Your task to perform on an android device: open app "Google Chat" (install if not already installed) Image 0: 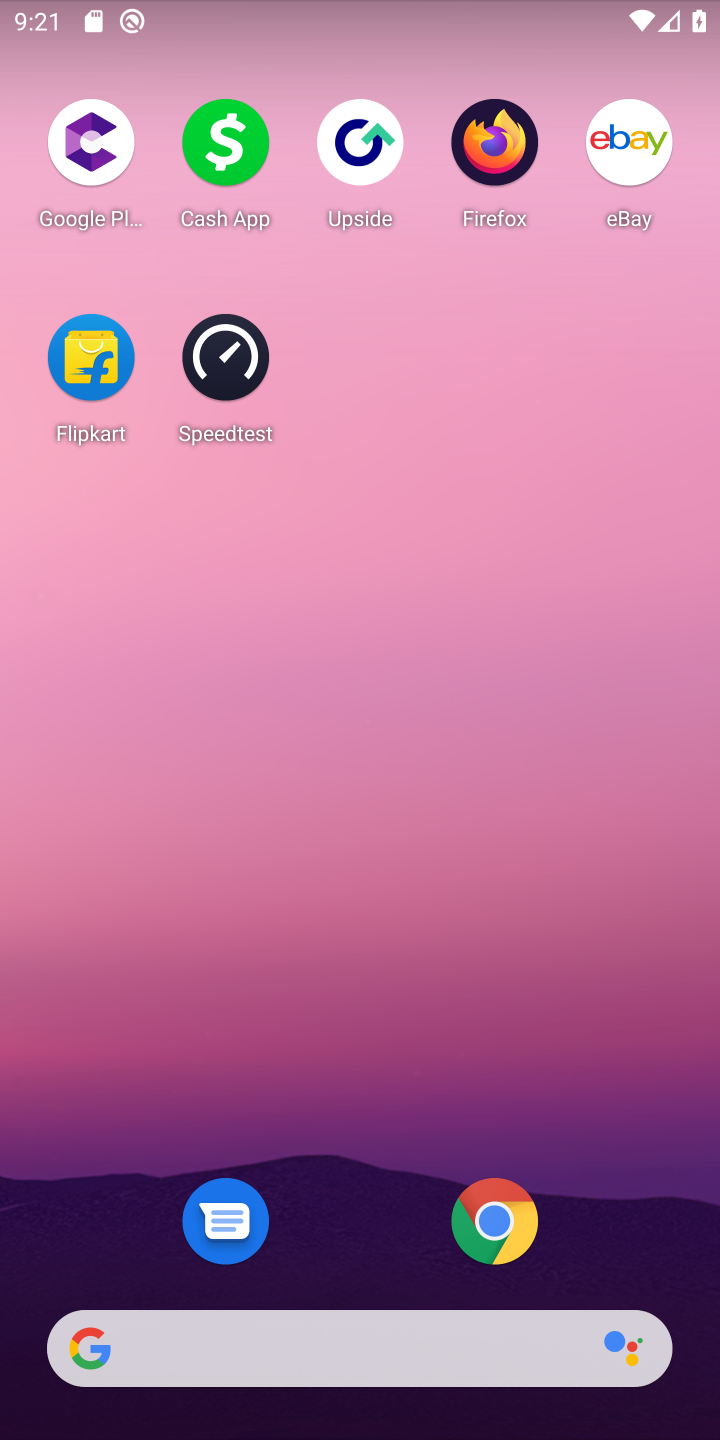
Step 0: drag from (328, 1090) to (318, 219)
Your task to perform on an android device: open app "Google Chat" (install if not already installed) Image 1: 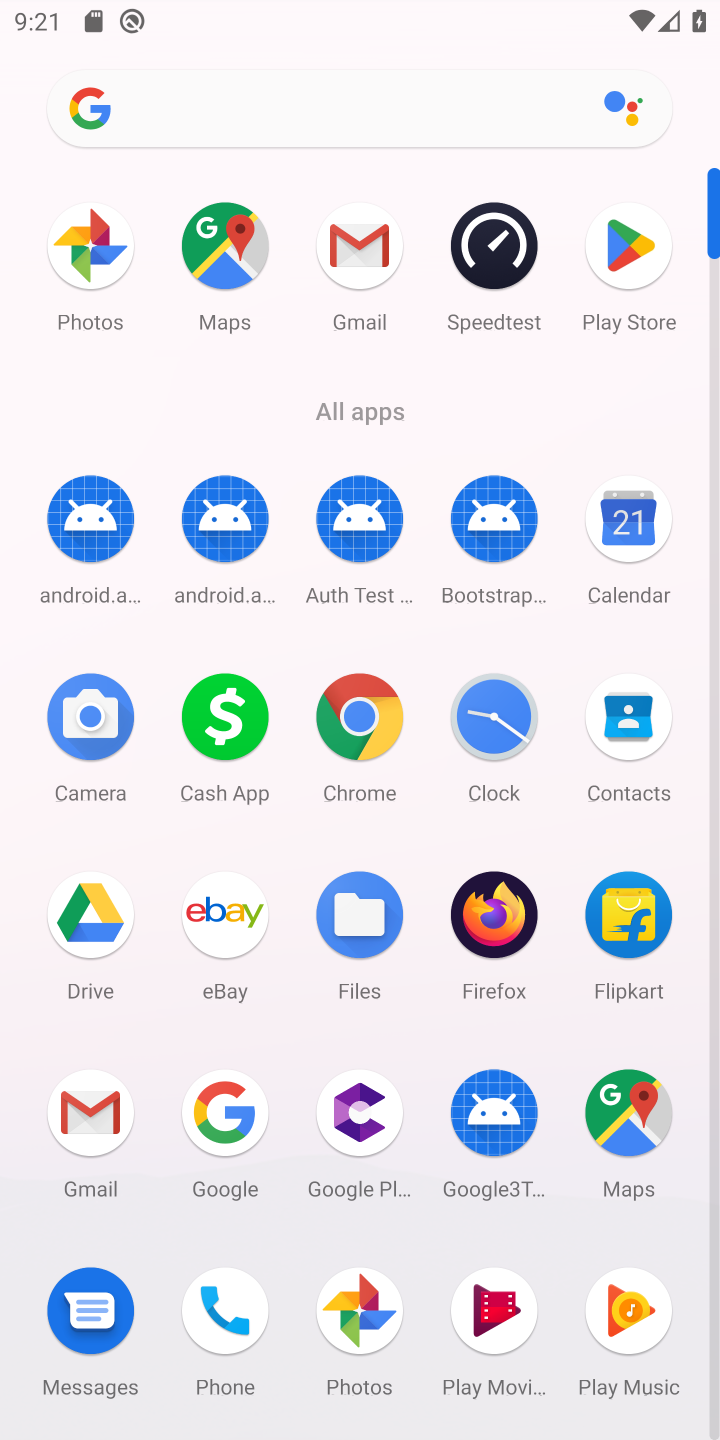
Step 1: click (645, 246)
Your task to perform on an android device: open app "Google Chat" (install if not already installed) Image 2: 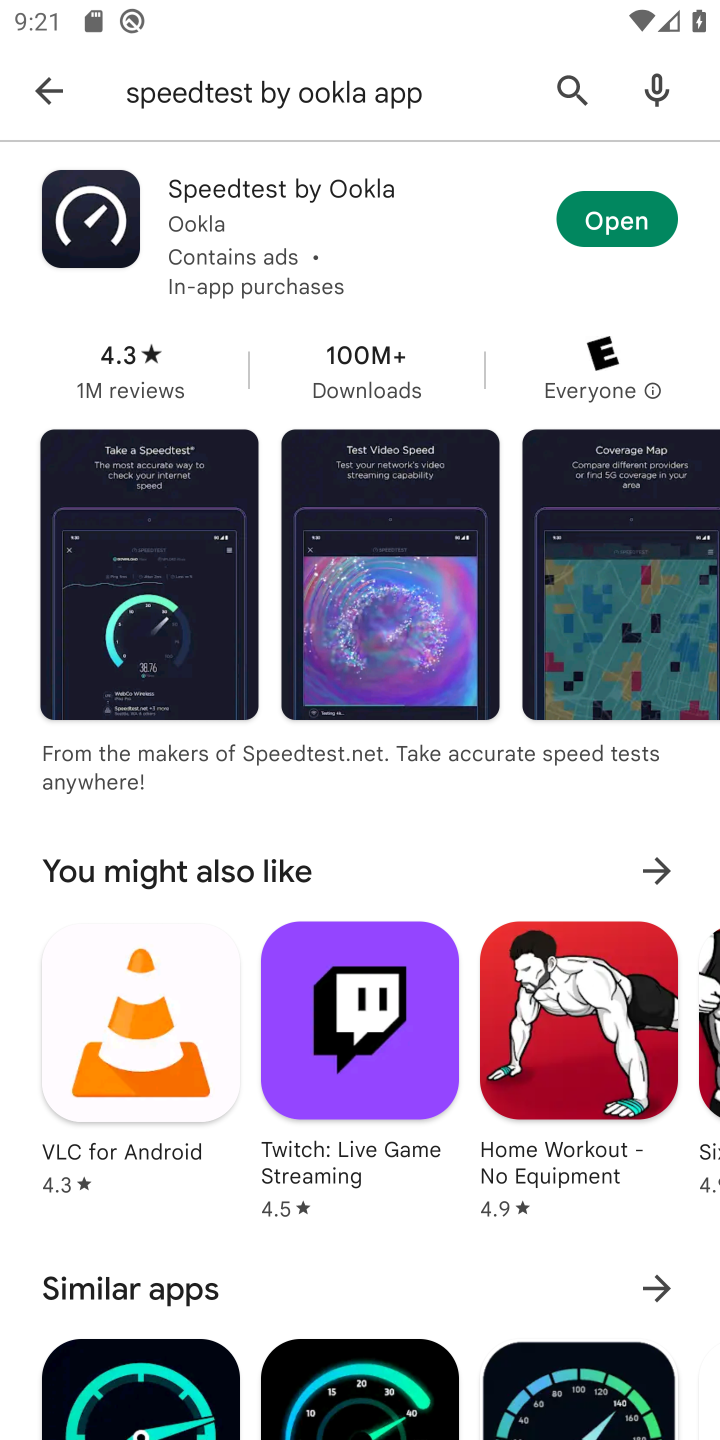
Step 2: click (575, 92)
Your task to perform on an android device: open app "Google Chat" (install if not already installed) Image 3: 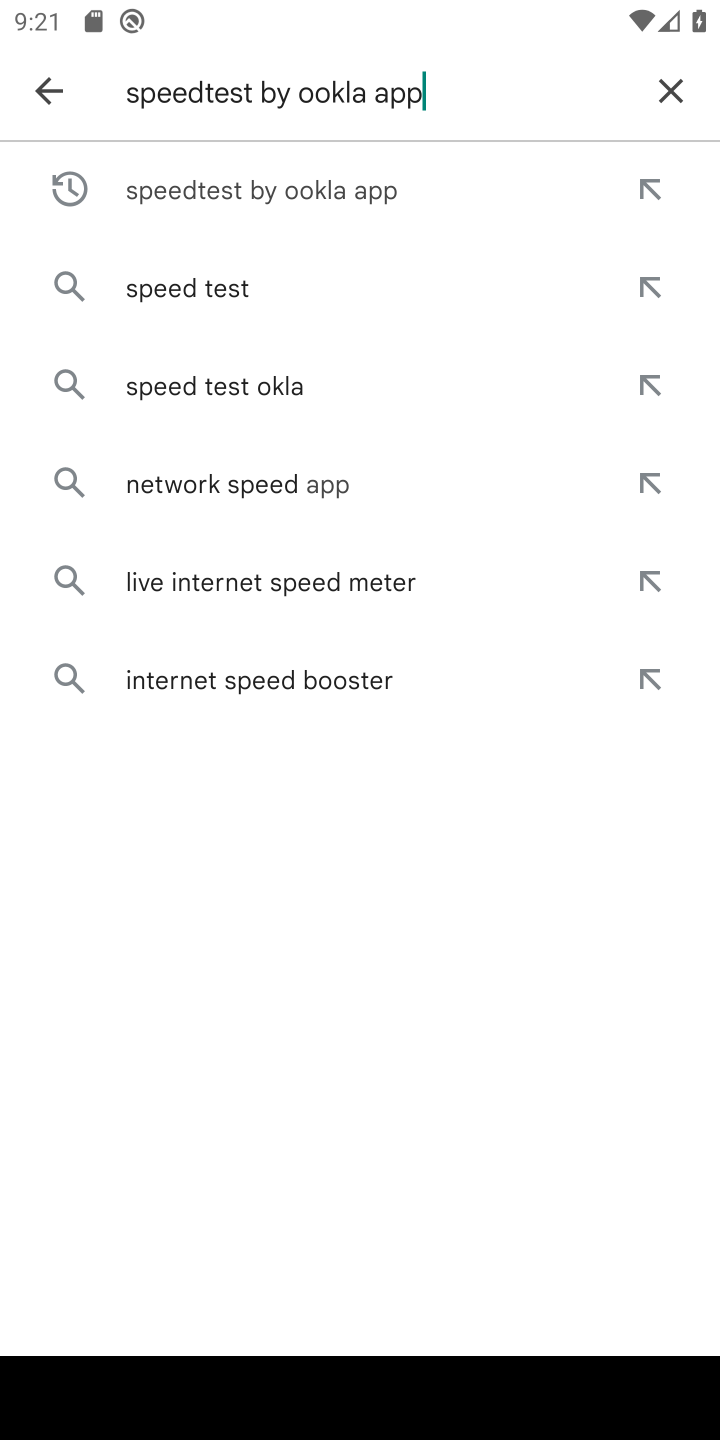
Step 3: click (665, 78)
Your task to perform on an android device: open app "Google Chat" (install if not already installed) Image 4: 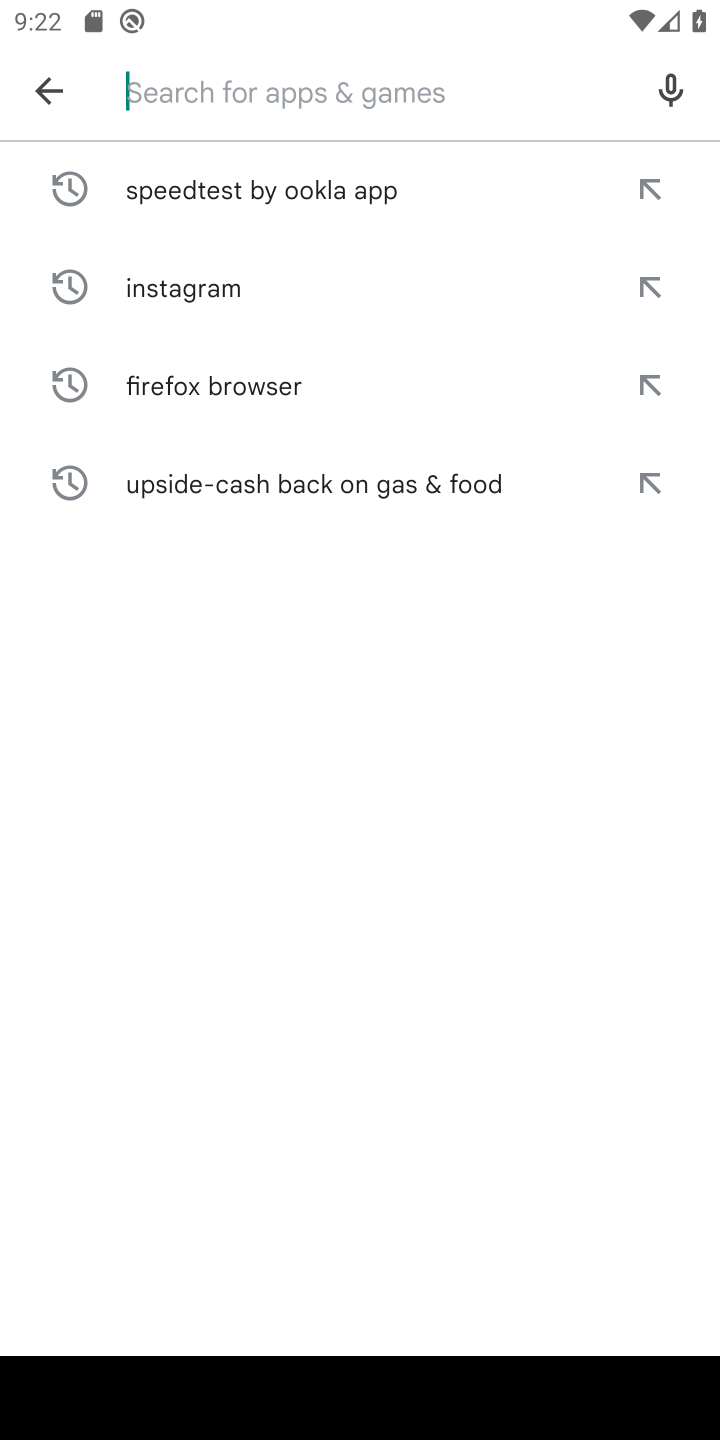
Step 4: type "Google Chat"
Your task to perform on an android device: open app "Google Chat" (install if not already installed) Image 5: 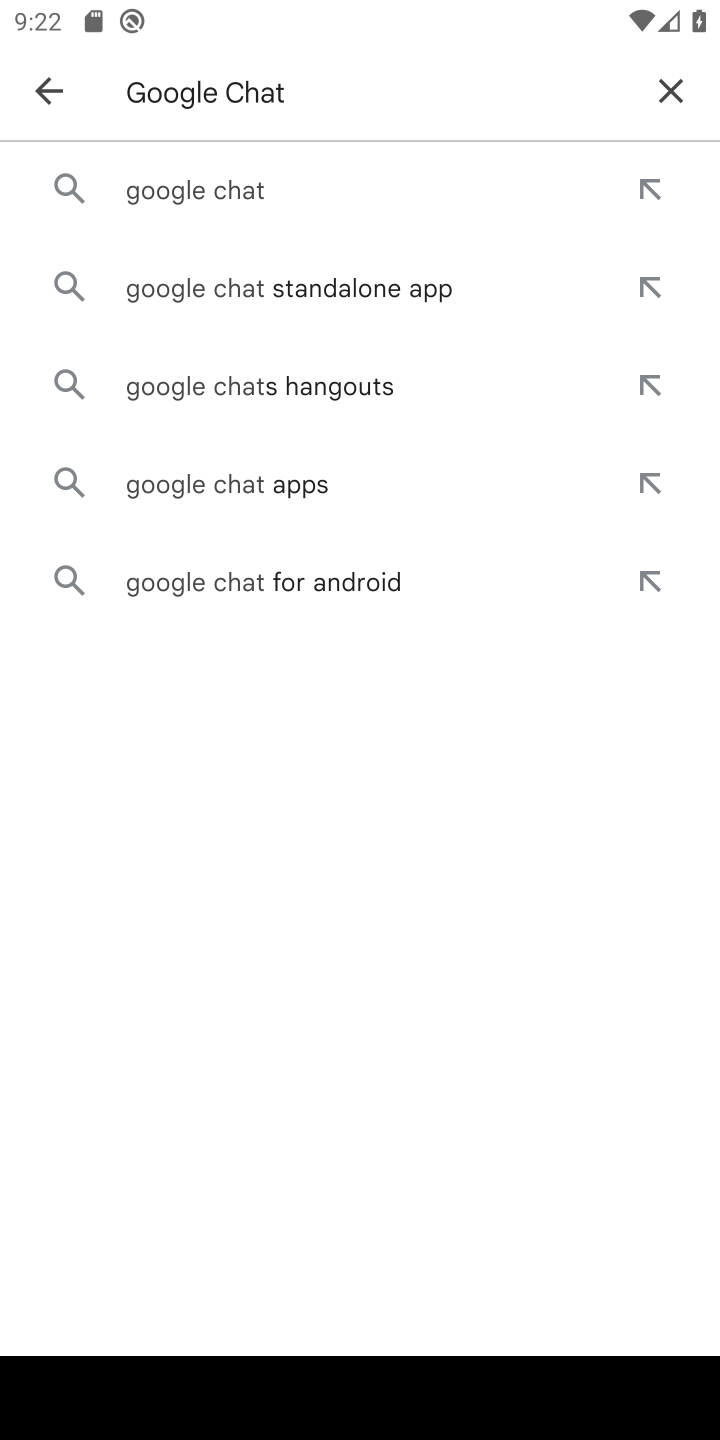
Step 5: click (294, 203)
Your task to perform on an android device: open app "Google Chat" (install if not already installed) Image 6: 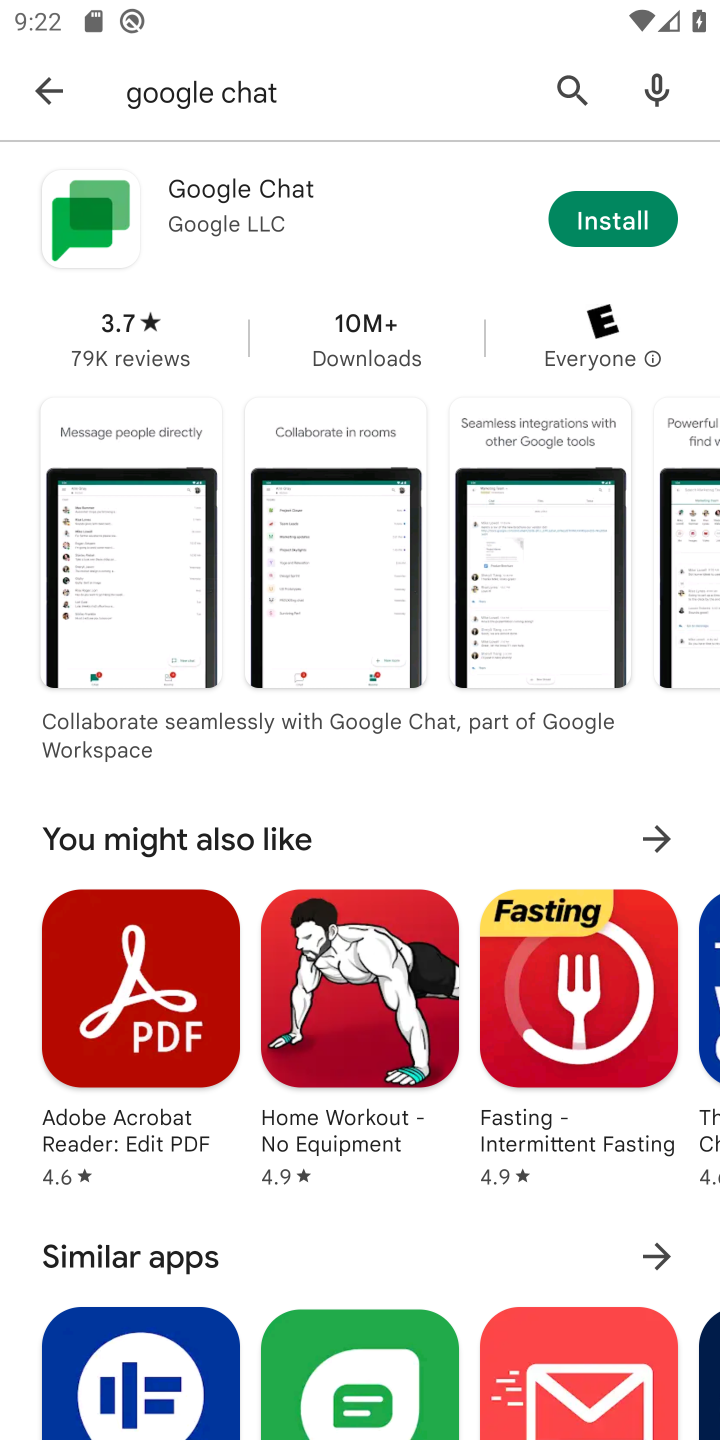
Step 6: click (638, 213)
Your task to perform on an android device: open app "Google Chat" (install if not already installed) Image 7: 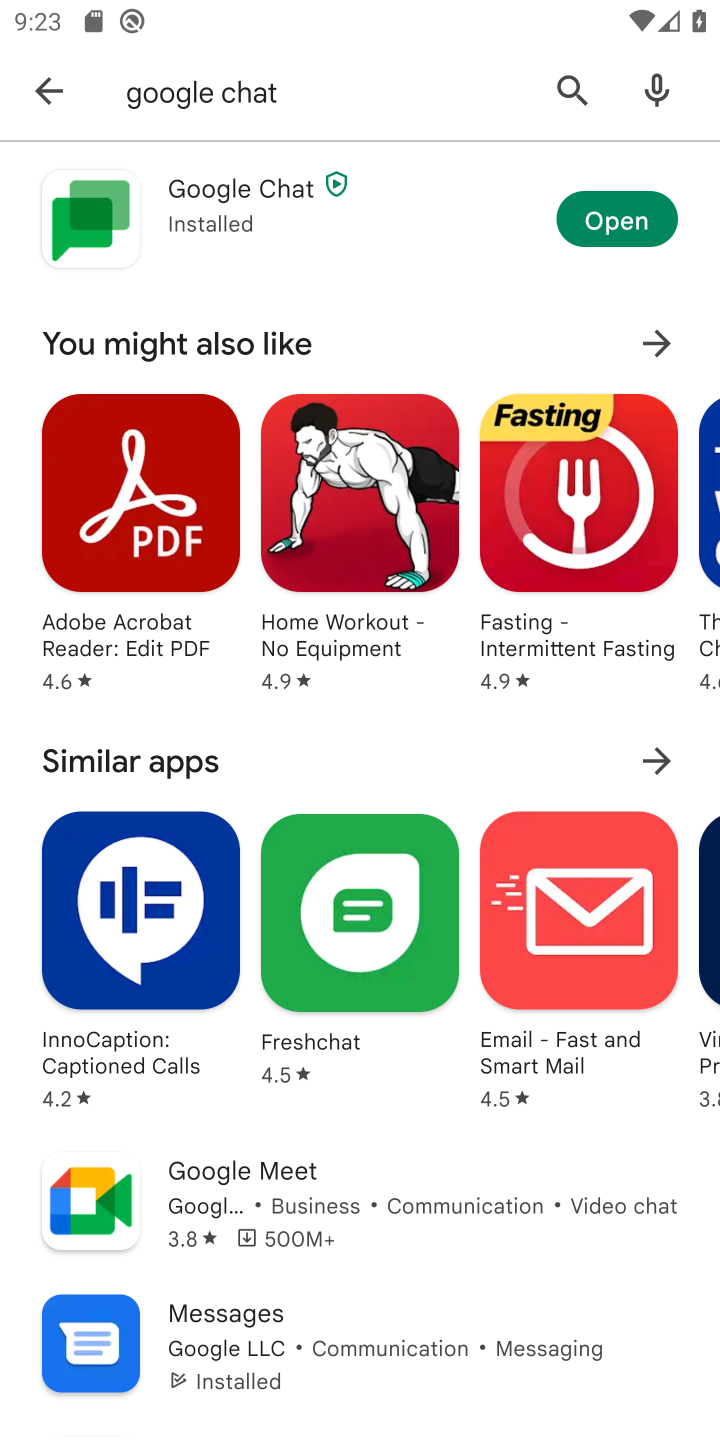
Step 7: click (638, 213)
Your task to perform on an android device: open app "Google Chat" (install if not already installed) Image 8: 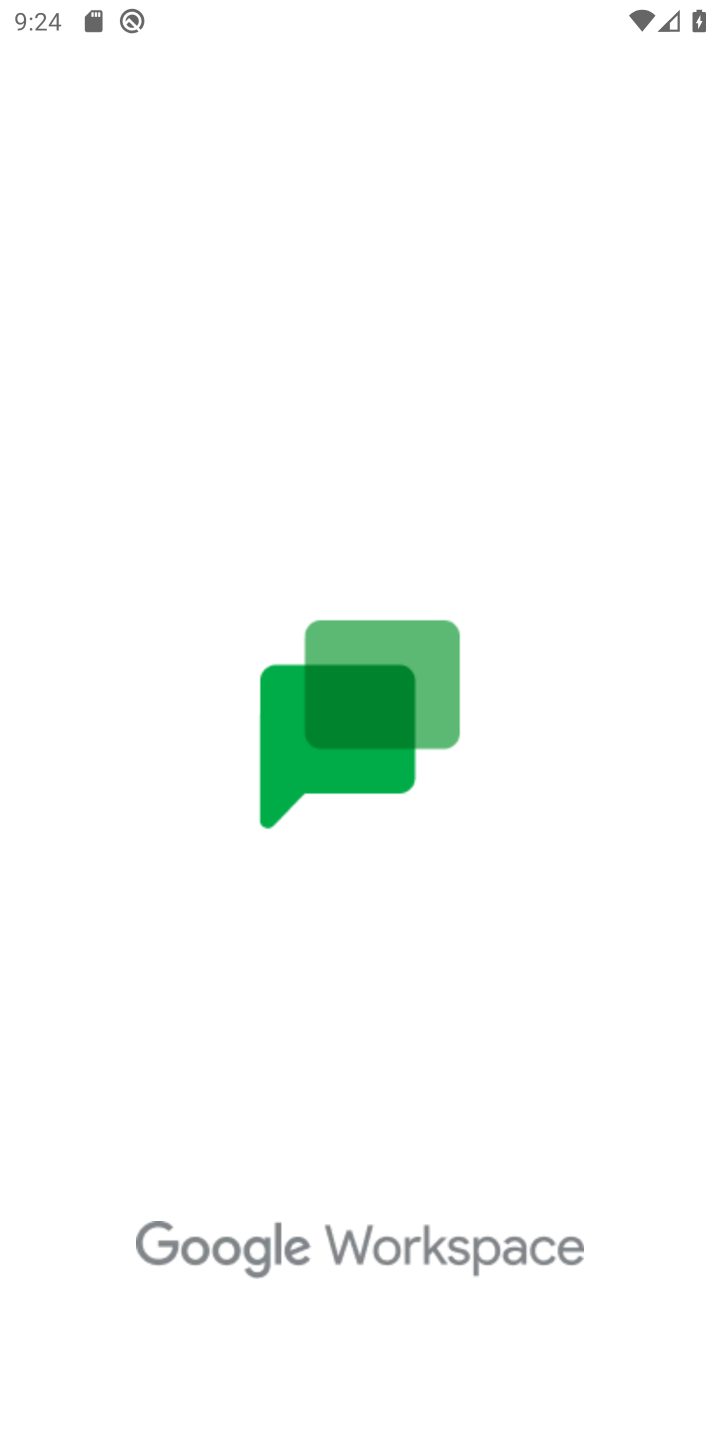
Step 8: task complete